Your task to perform on an android device: turn on notifications settings in the gmail app Image 0: 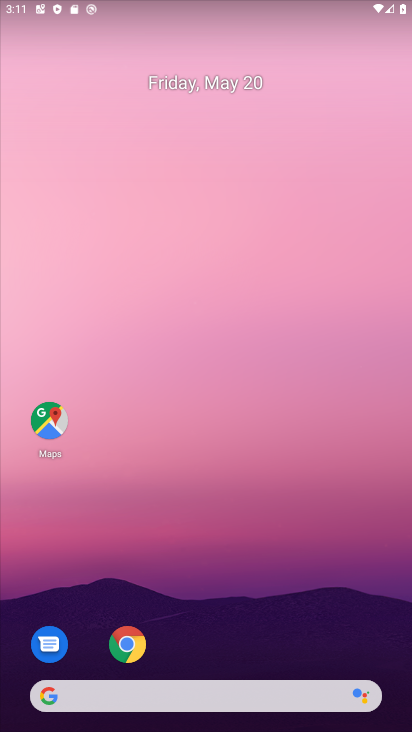
Step 0: drag from (348, 619) to (244, 275)
Your task to perform on an android device: turn on notifications settings in the gmail app Image 1: 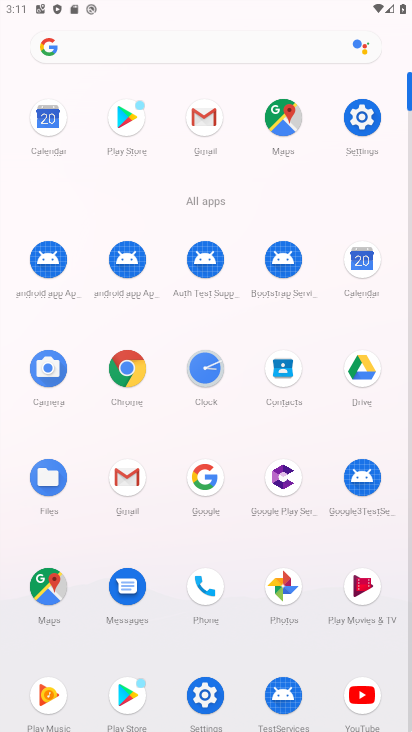
Step 1: click (207, 166)
Your task to perform on an android device: turn on notifications settings in the gmail app Image 2: 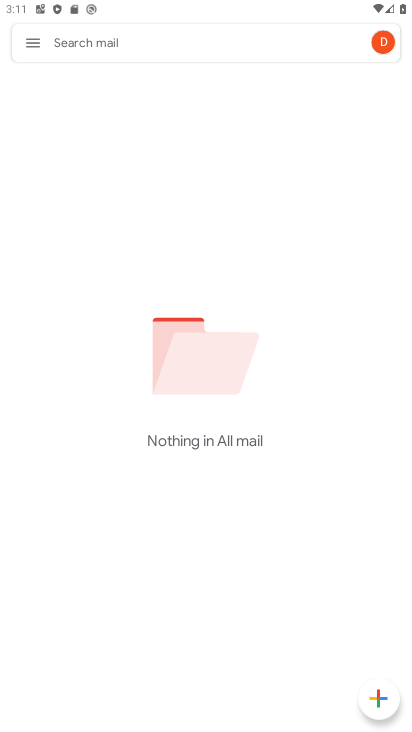
Step 2: click (41, 54)
Your task to perform on an android device: turn on notifications settings in the gmail app Image 3: 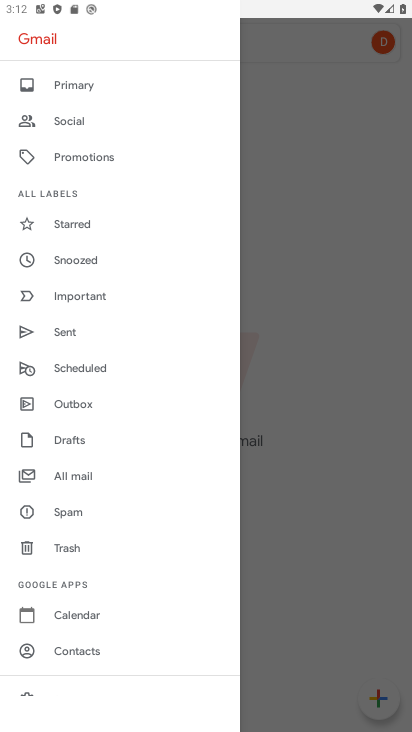
Step 3: task complete